Your task to perform on an android device: toggle javascript in the chrome app Image 0: 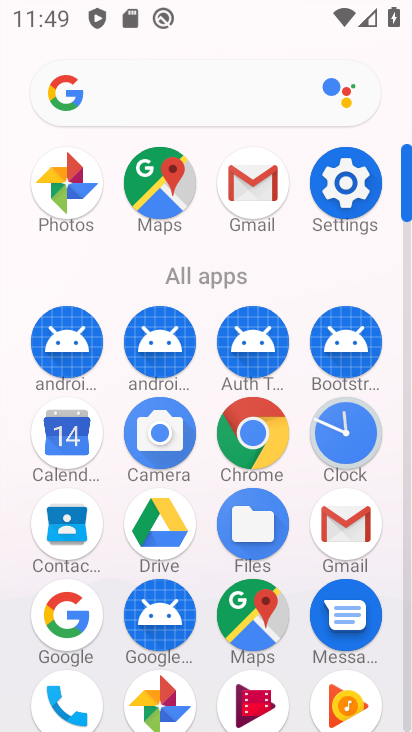
Step 0: click (239, 425)
Your task to perform on an android device: toggle javascript in the chrome app Image 1: 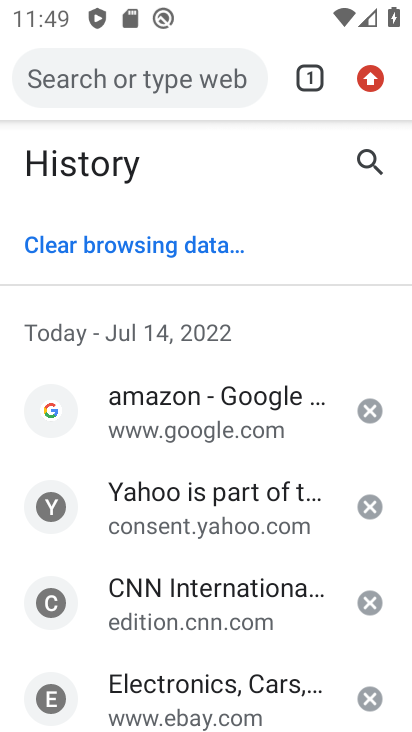
Step 1: click (372, 77)
Your task to perform on an android device: toggle javascript in the chrome app Image 2: 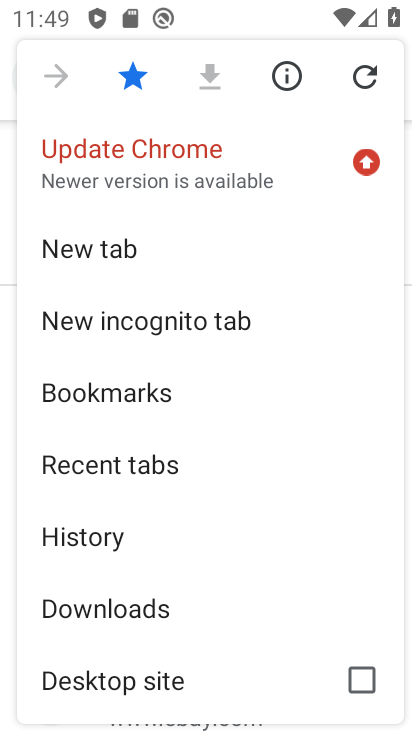
Step 2: drag from (319, 386) to (328, 314)
Your task to perform on an android device: toggle javascript in the chrome app Image 3: 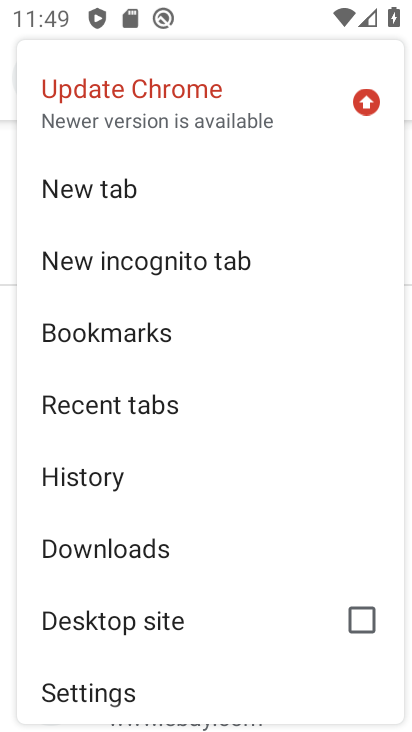
Step 3: drag from (320, 424) to (324, 310)
Your task to perform on an android device: toggle javascript in the chrome app Image 4: 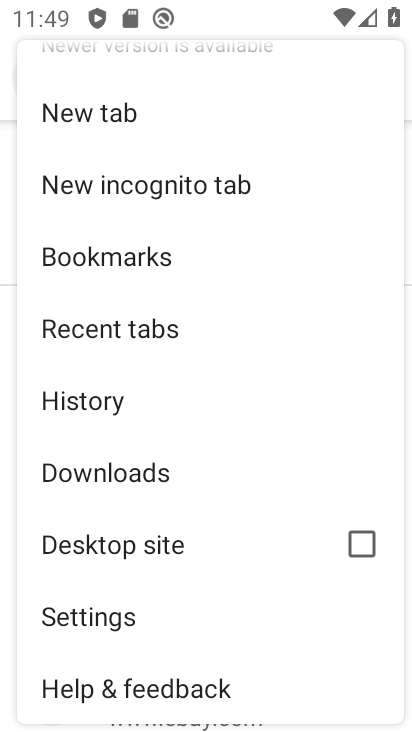
Step 4: drag from (271, 481) to (293, 394)
Your task to perform on an android device: toggle javascript in the chrome app Image 5: 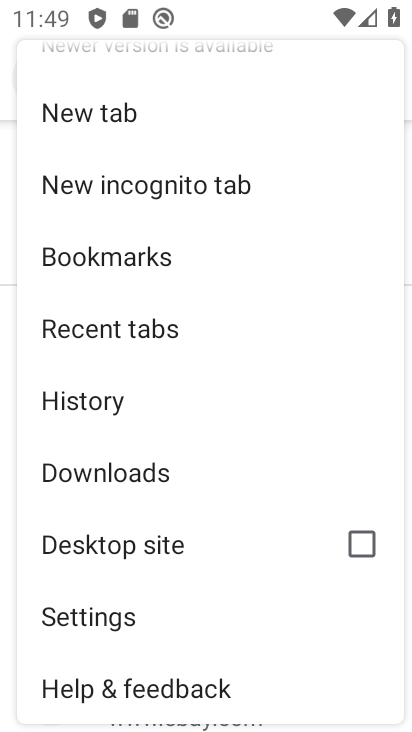
Step 5: click (168, 612)
Your task to perform on an android device: toggle javascript in the chrome app Image 6: 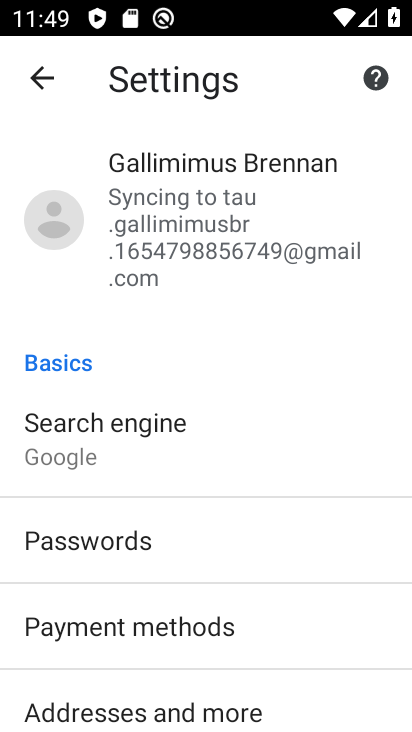
Step 6: drag from (295, 526) to (303, 464)
Your task to perform on an android device: toggle javascript in the chrome app Image 7: 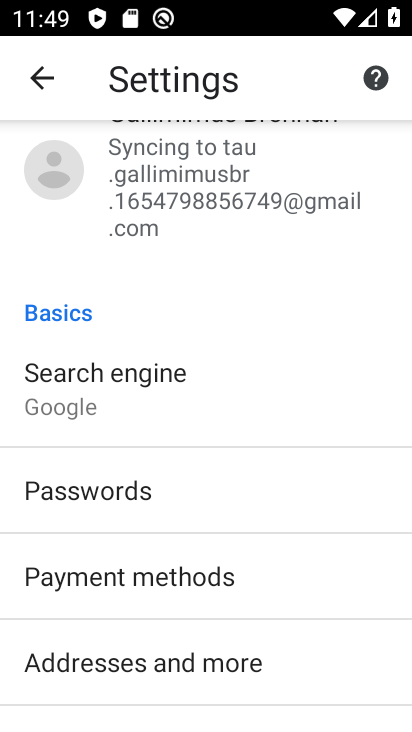
Step 7: drag from (334, 637) to (338, 471)
Your task to perform on an android device: toggle javascript in the chrome app Image 8: 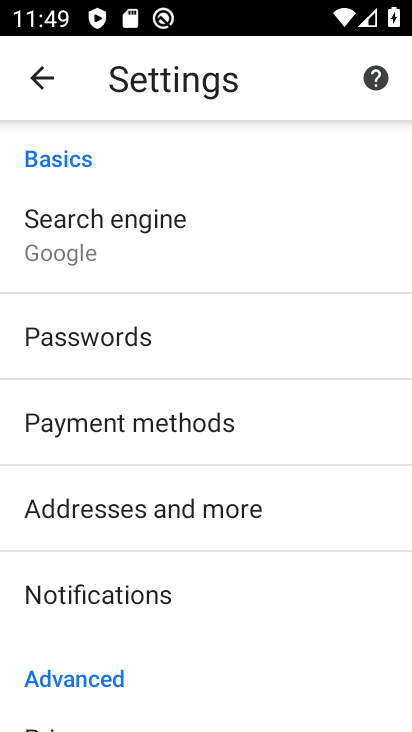
Step 8: drag from (341, 628) to (350, 519)
Your task to perform on an android device: toggle javascript in the chrome app Image 9: 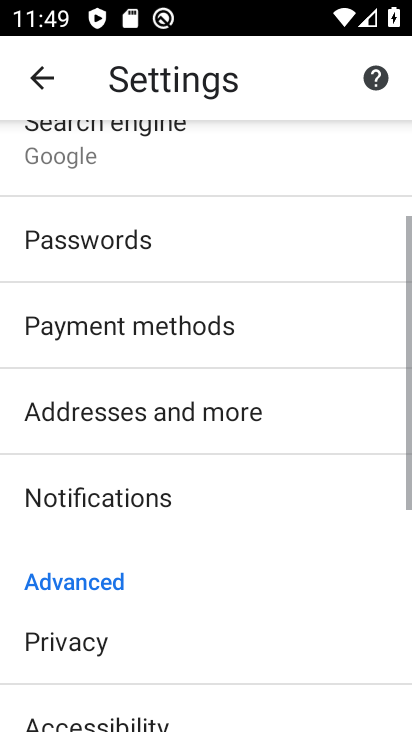
Step 9: drag from (340, 600) to (335, 515)
Your task to perform on an android device: toggle javascript in the chrome app Image 10: 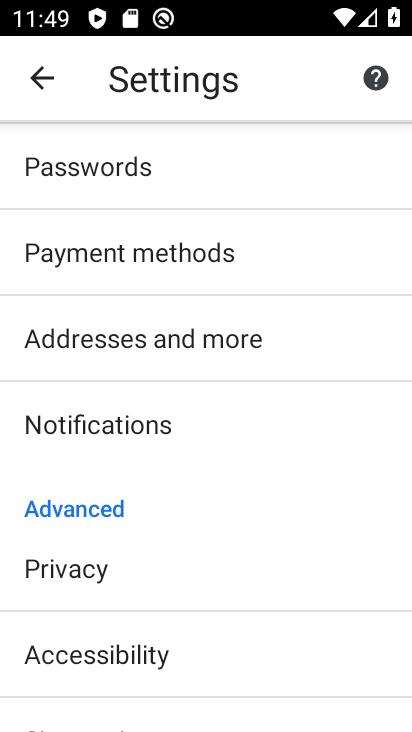
Step 10: drag from (320, 615) to (327, 548)
Your task to perform on an android device: toggle javascript in the chrome app Image 11: 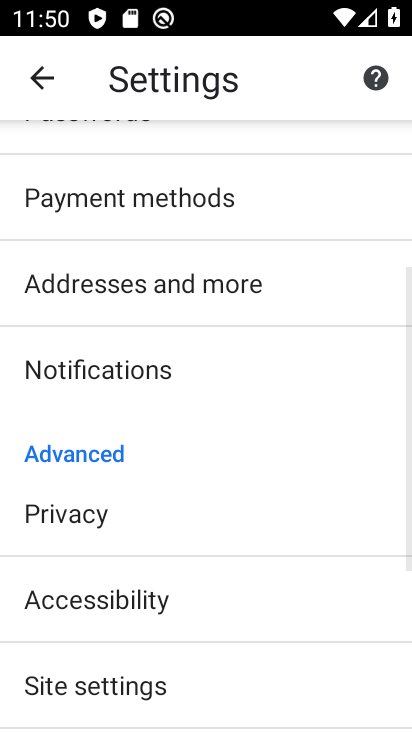
Step 11: drag from (328, 605) to (334, 500)
Your task to perform on an android device: toggle javascript in the chrome app Image 12: 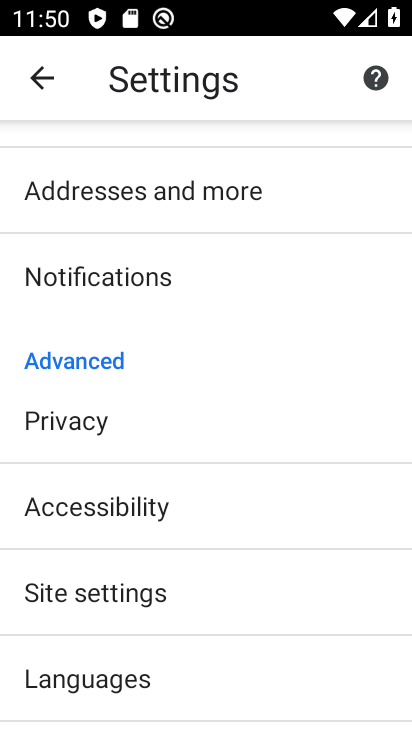
Step 12: drag from (327, 574) to (324, 488)
Your task to perform on an android device: toggle javascript in the chrome app Image 13: 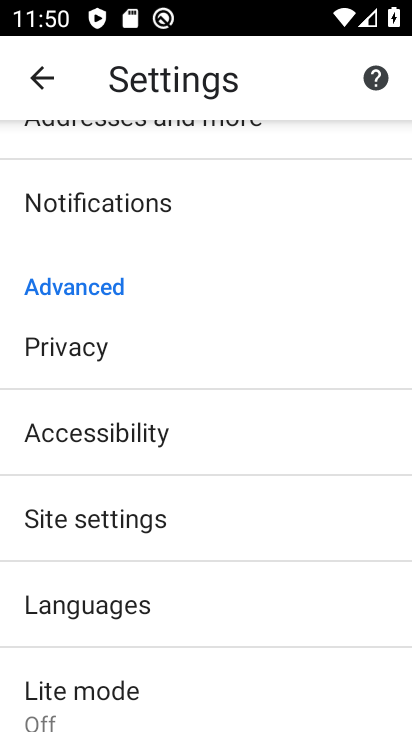
Step 13: drag from (298, 570) to (294, 441)
Your task to perform on an android device: toggle javascript in the chrome app Image 14: 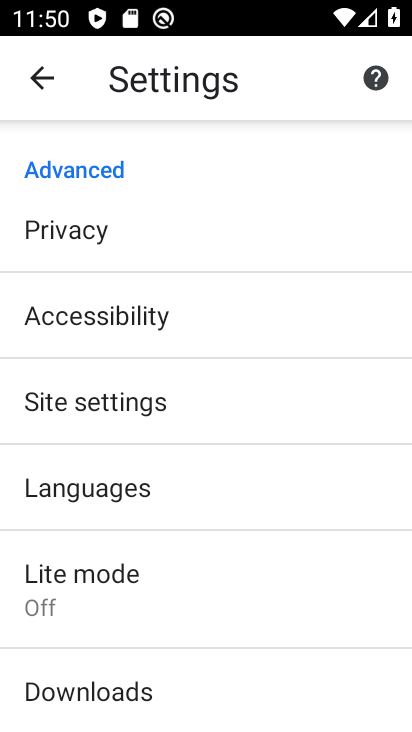
Step 14: click (318, 409)
Your task to perform on an android device: toggle javascript in the chrome app Image 15: 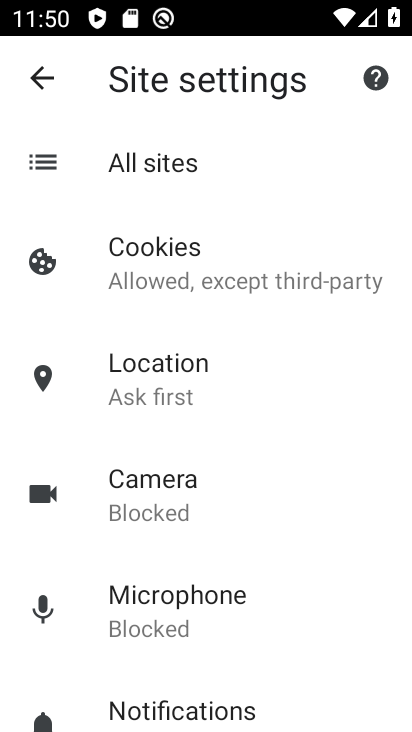
Step 15: drag from (301, 458) to (310, 296)
Your task to perform on an android device: toggle javascript in the chrome app Image 16: 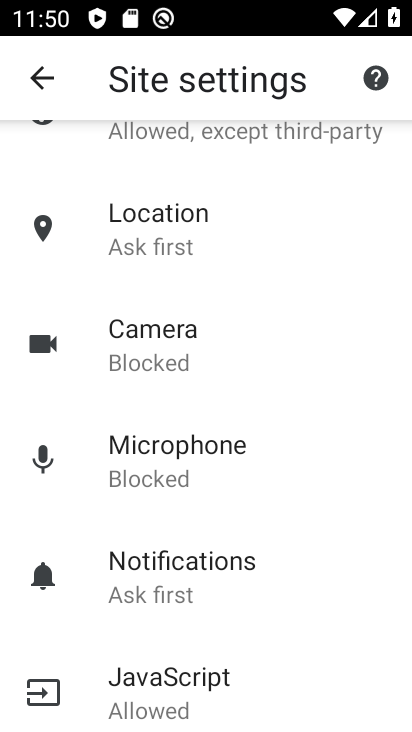
Step 16: drag from (320, 498) to (322, 401)
Your task to perform on an android device: toggle javascript in the chrome app Image 17: 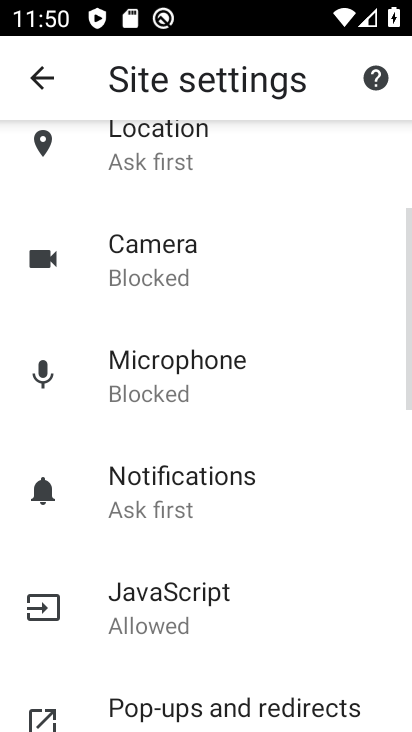
Step 17: drag from (330, 534) to (338, 407)
Your task to perform on an android device: toggle javascript in the chrome app Image 18: 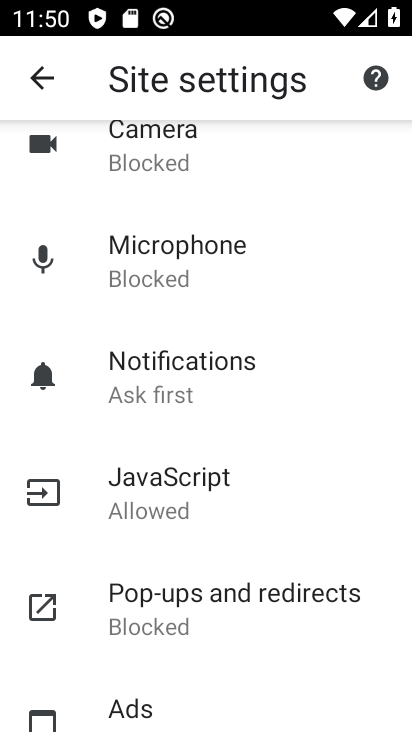
Step 18: drag from (339, 486) to (352, 400)
Your task to perform on an android device: toggle javascript in the chrome app Image 19: 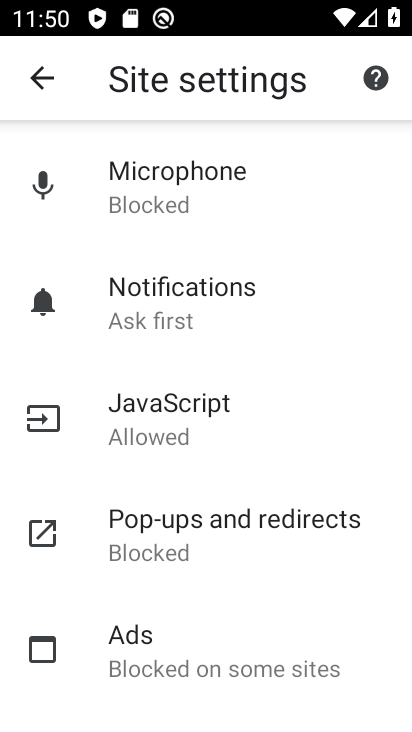
Step 19: click (249, 412)
Your task to perform on an android device: toggle javascript in the chrome app Image 20: 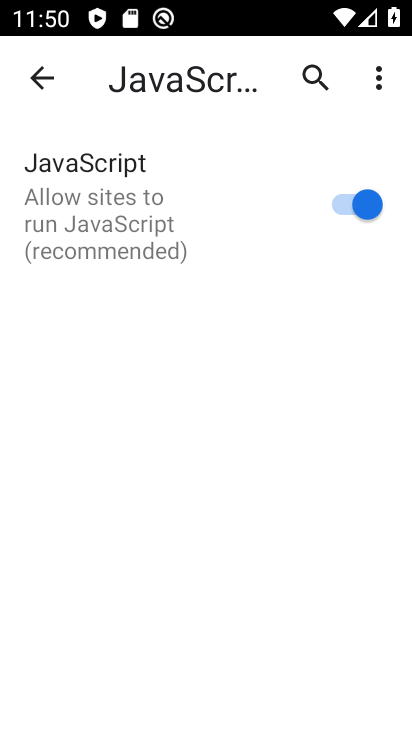
Step 20: click (366, 199)
Your task to perform on an android device: toggle javascript in the chrome app Image 21: 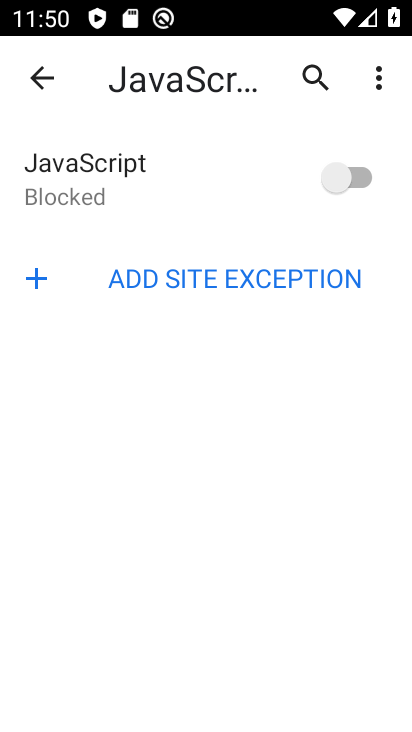
Step 21: task complete